Your task to perform on an android device: toggle notification dots Image 0: 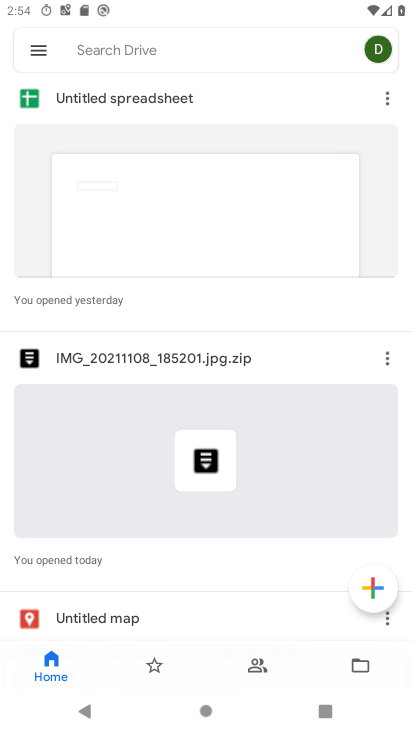
Step 0: press home button
Your task to perform on an android device: toggle notification dots Image 1: 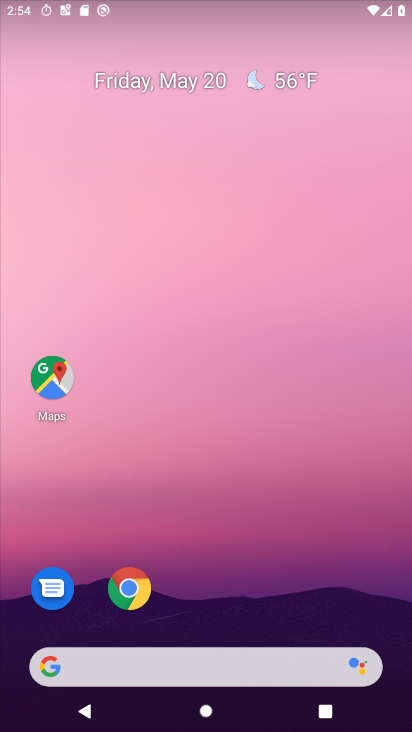
Step 1: drag from (1, 667) to (238, 114)
Your task to perform on an android device: toggle notification dots Image 2: 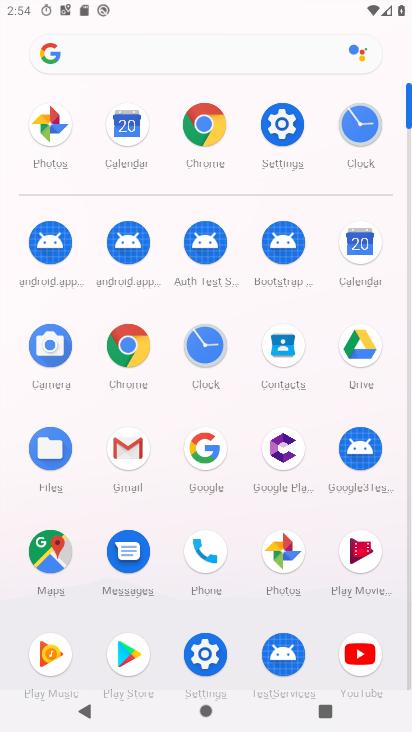
Step 2: click (211, 641)
Your task to perform on an android device: toggle notification dots Image 3: 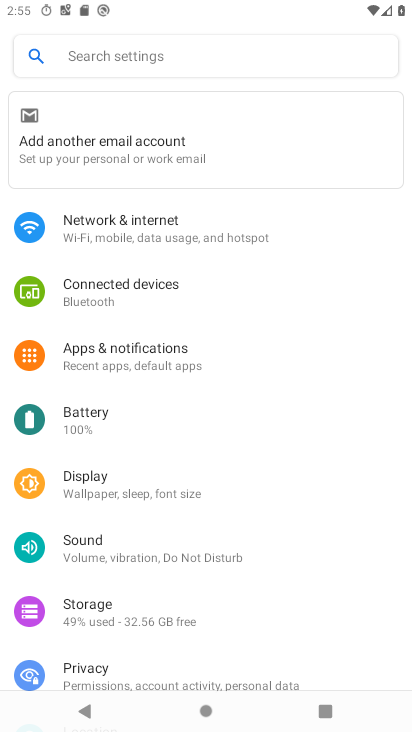
Step 3: click (87, 355)
Your task to perform on an android device: toggle notification dots Image 4: 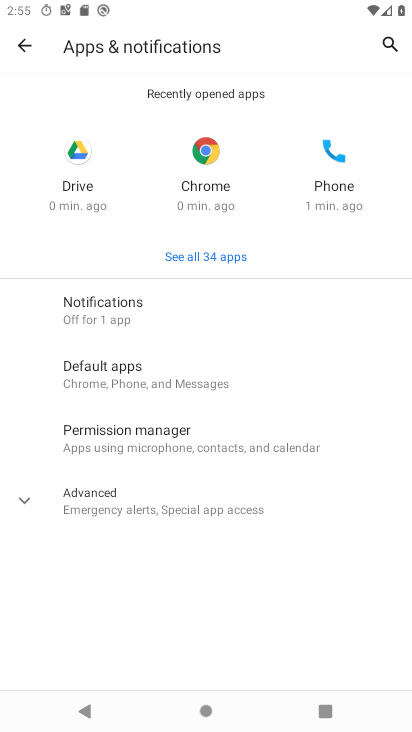
Step 4: click (135, 326)
Your task to perform on an android device: toggle notification dots Image 5: 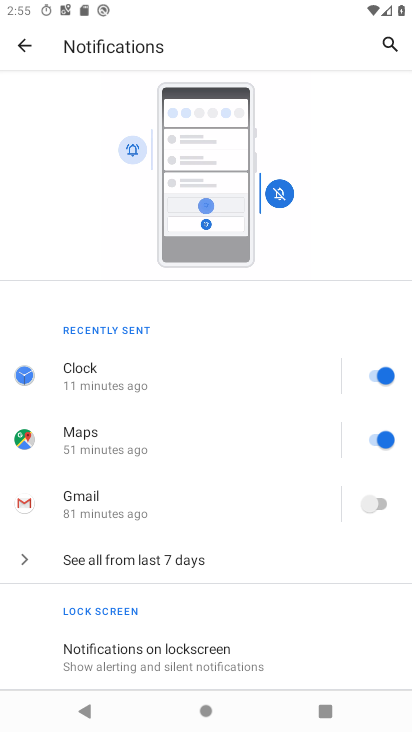
Step 5: drag from (84, 650) to (200, 223)
Your task to perform on an android device: toggle notification dots Image 6: 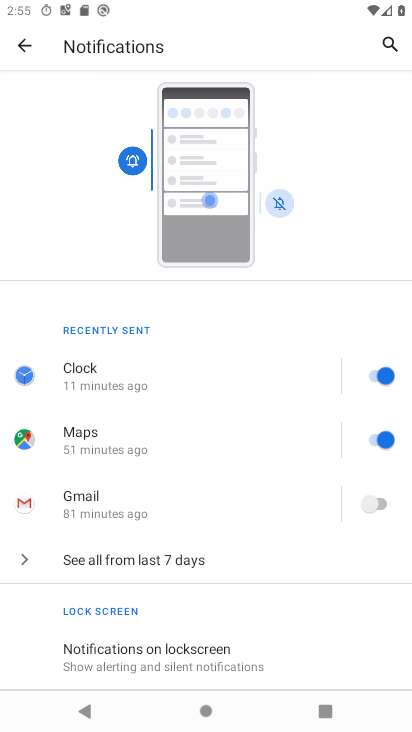
Step 6: drag from (28, 501) to (249, 143)
Your task to perform on an android device: toggle notification dots Image 7: 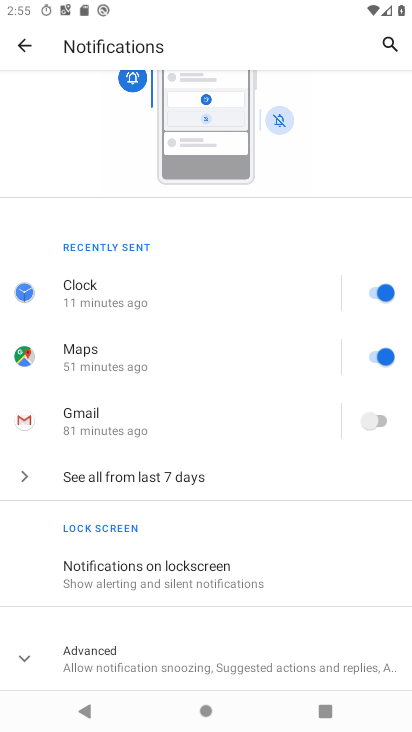
Step 7: click (57, 648)
Your task to perform on an android device: toggle notification dots Image 8: 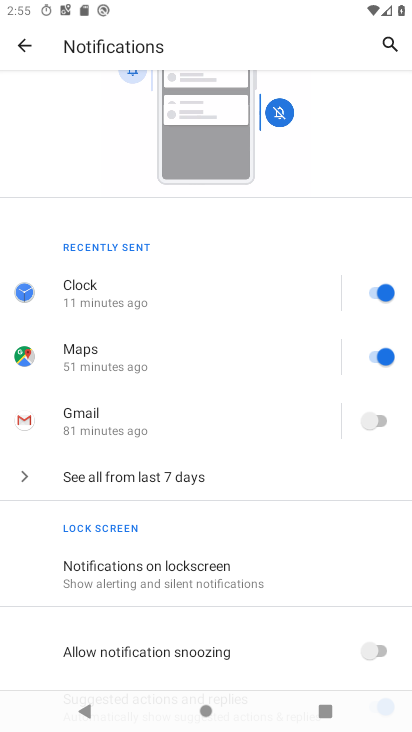
Step 8: drag from (45, 698) to (181, 298)
Your task to perform on an android device: toggle notification dots Image 9: 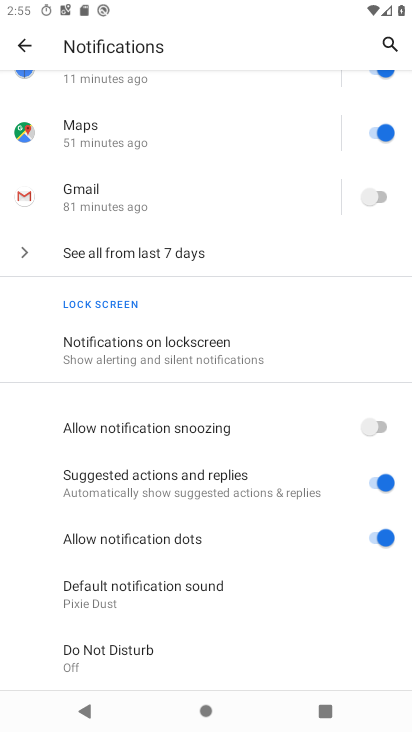
Step 9: click (383, 536)
Your task to perform on an android device: toggle notification dots Image 10: 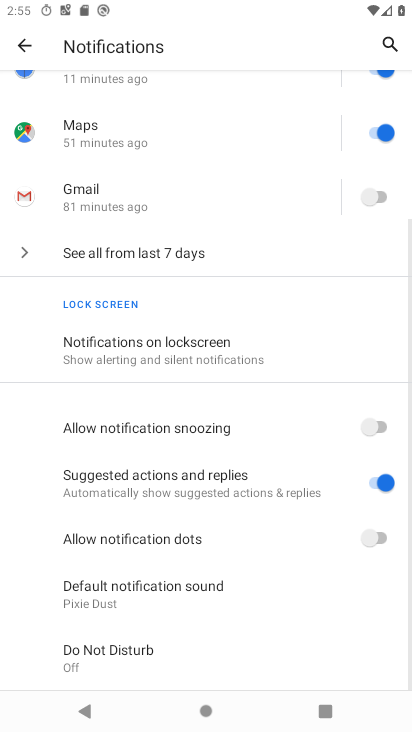
Step 10: task complete